Your task to perform on an android device: Check the news Image 0: 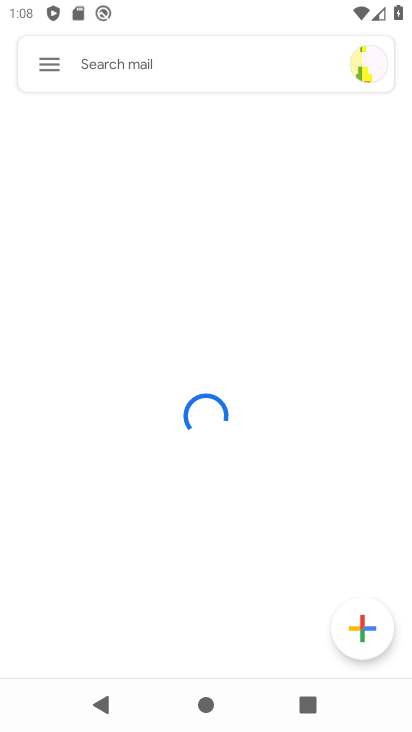
Step 0: press back button
Your task to perform on an android device: Check the news Image 1: 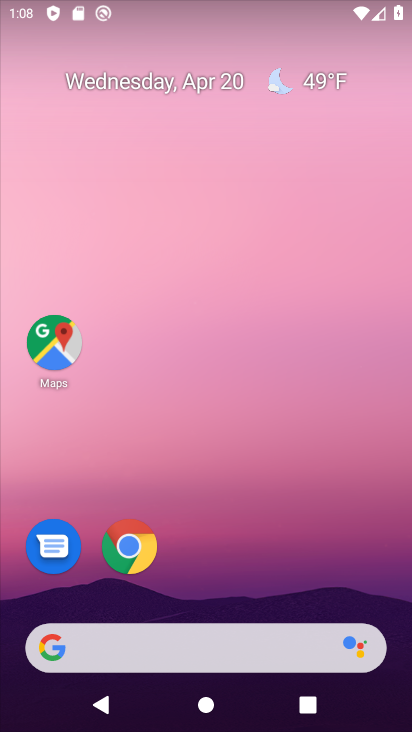
Step 1: click (158, 655)
Your task to perform on an android device: Check the news Image 2: 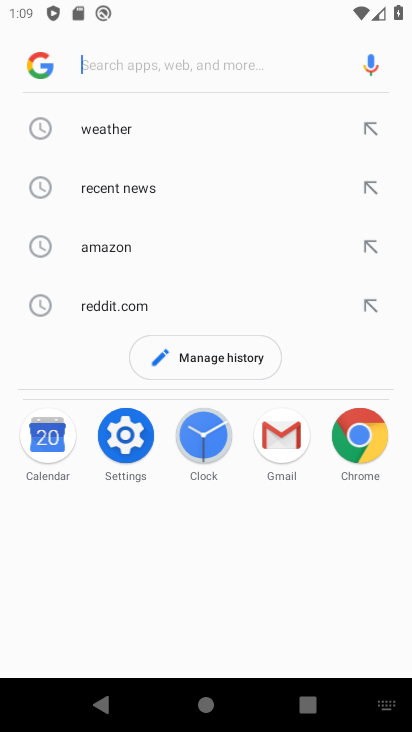
Step 2: click (112, 183)
Your task to perform on an android device: Check the news Image 3: 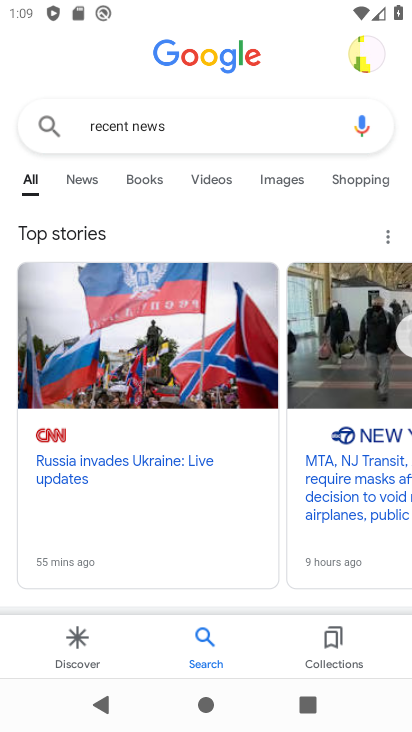
Step 3: task complete